Your task to perform on an android device: Search for vegetarian restaurants on Maps Image 0: 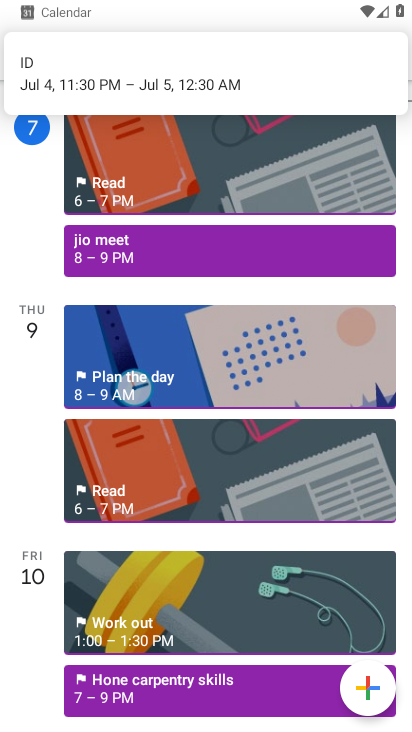
Step 0: press back button
Your task to perform on an android device: Search for vegetarian restaurants on Maps Image 1: 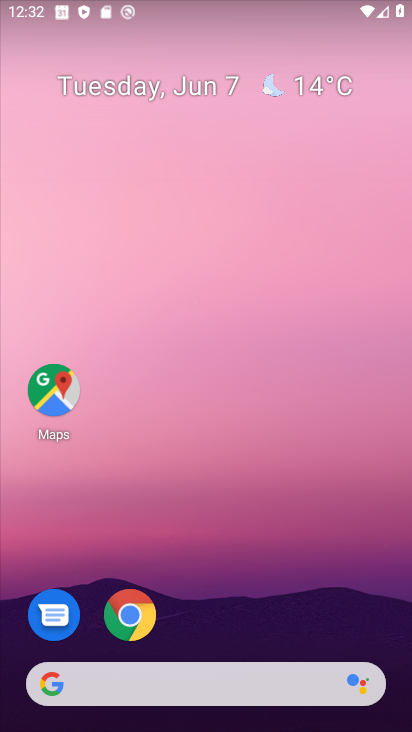
Step 1: click (54, 393)
Your task to perform on an android device: Search for vegetarian restaurants on Maps Image 2: 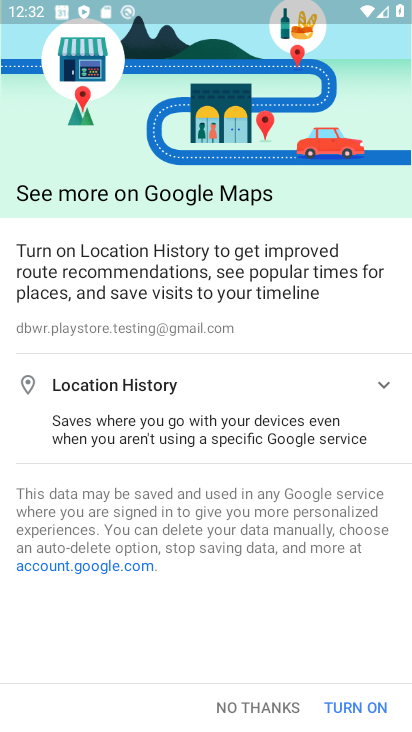
Step 2: click (280, 702)
Your task to perform on an android device: Search for vegetarian restaurants on Maps Image 3: 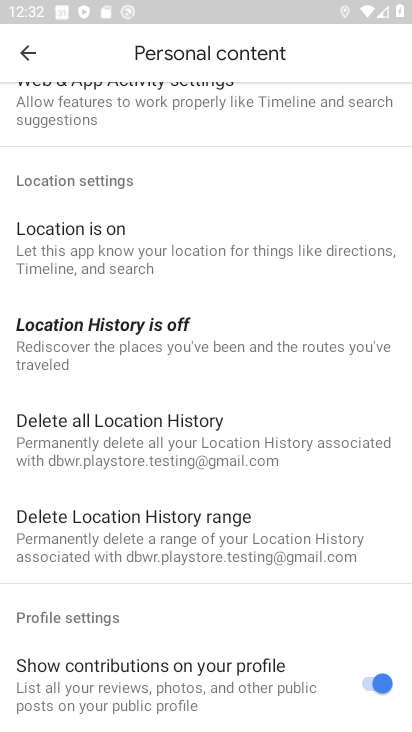
Step 3: click (26, 52)
Your task to perform on an android device: Search for vegetarian restaurants on Maps Image 4: 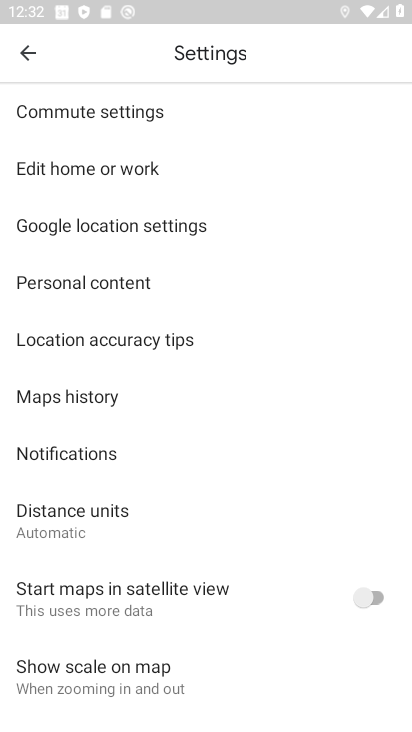
Step 4: click (26, 52)
Your task to perform on an android device: Search for vegetarian restaurants on Maps Image 5: 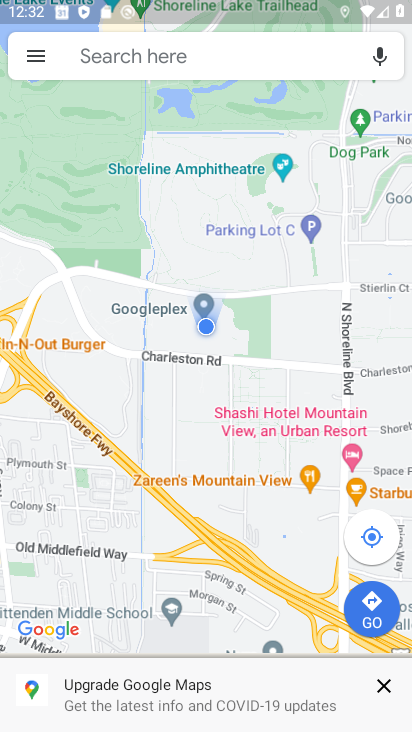
Step 5: click (161, 56)
Your task to perform on an android device: Search for vegetarian restaurants on Maps Image 6: 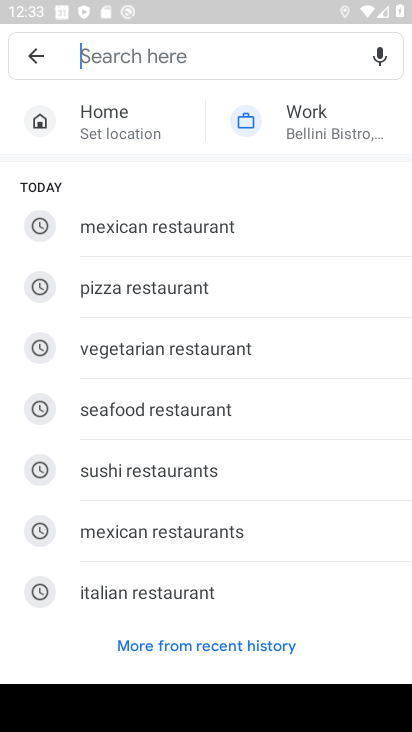
Step 6: type "vegetarian restaurants"
Your task to perform on an android device: Search for vegetarian restaurants on Maps Image 7: 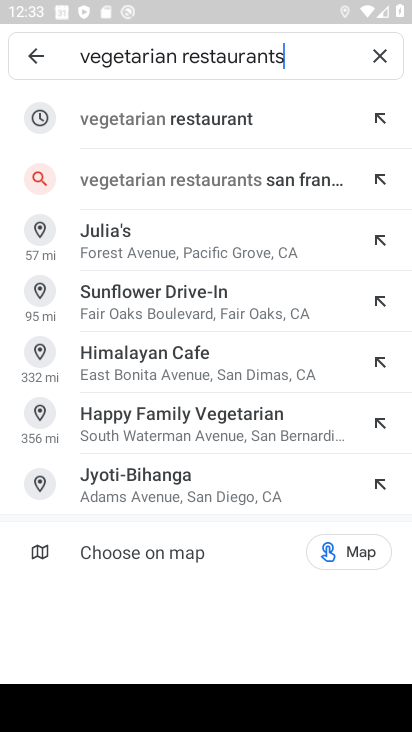
Step 7: click (214, 118)
Your task to perform on an android device: Search for vegetarian restaurants on Maps Image 8: 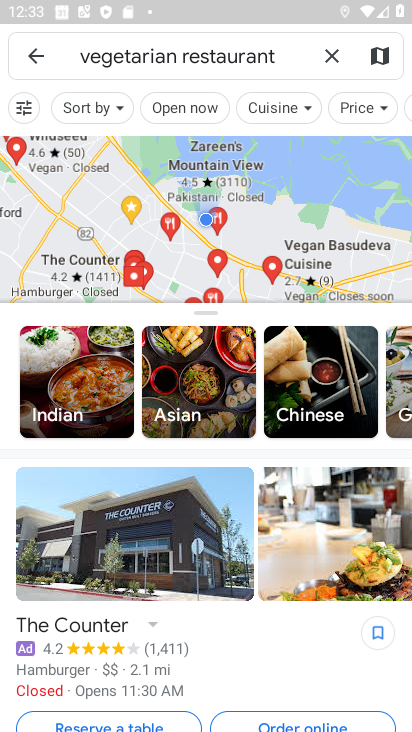
Step 8: task complete